Your task to perform on an android device: Open Reddit.com Image 0: 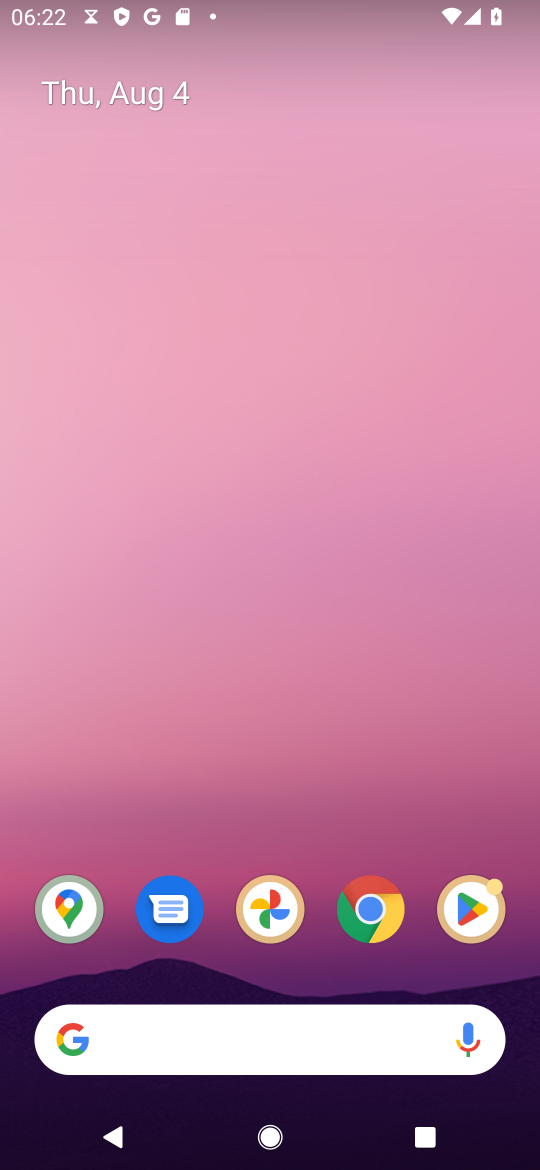
Step 0: click (370, 919)
Your task to perform on an android device: Open Reddit.com Image 1: 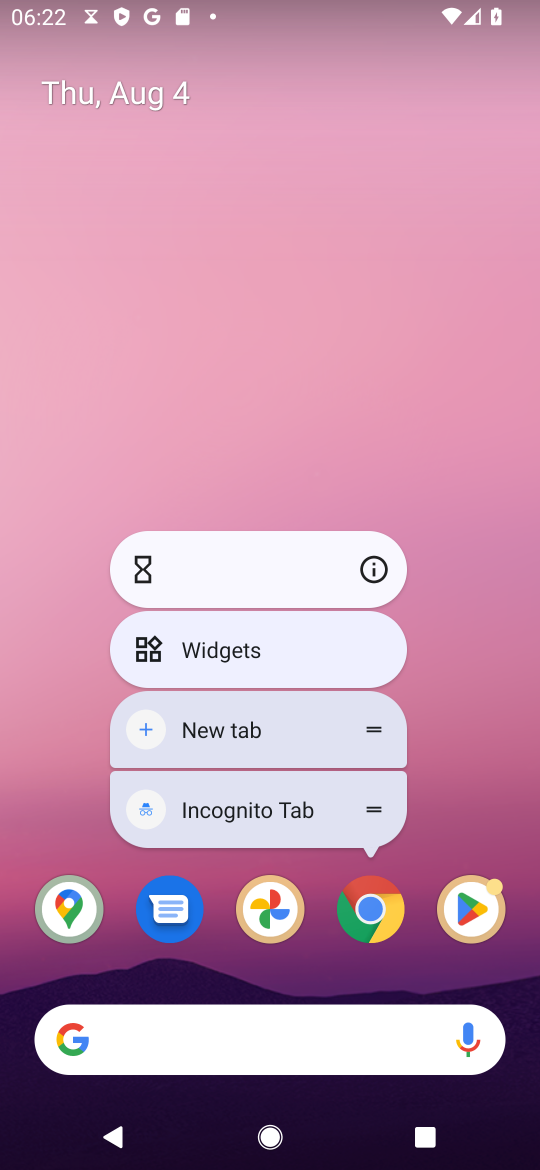
Step 1: click (372, 915)
Your task to perform on an android device: Open Reddit.com Image 2: 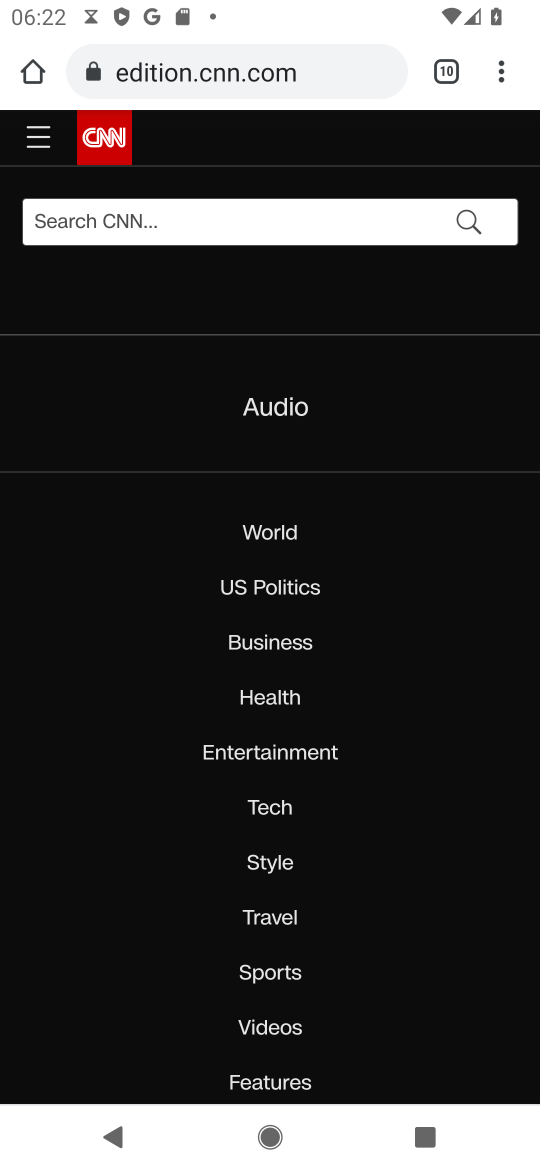
Step 2: drag from (503, 76) to (281, 247)
Your task to perform on an android device: Open Reddit.com Image 3: 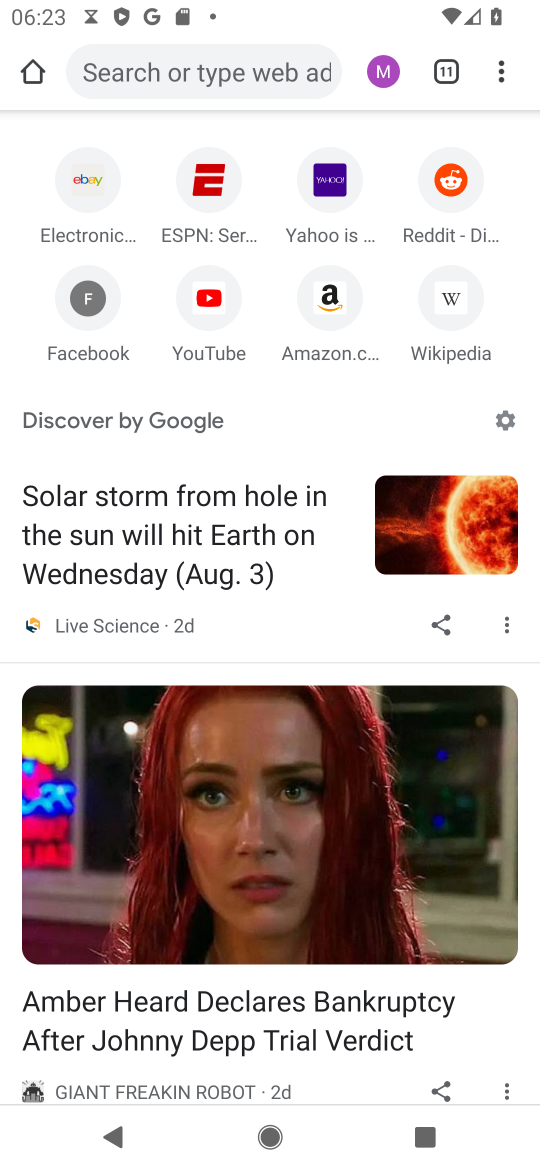
Step 3: click (458, 207)
Your task to perform on an android device: Open Reddit.com Image 4: 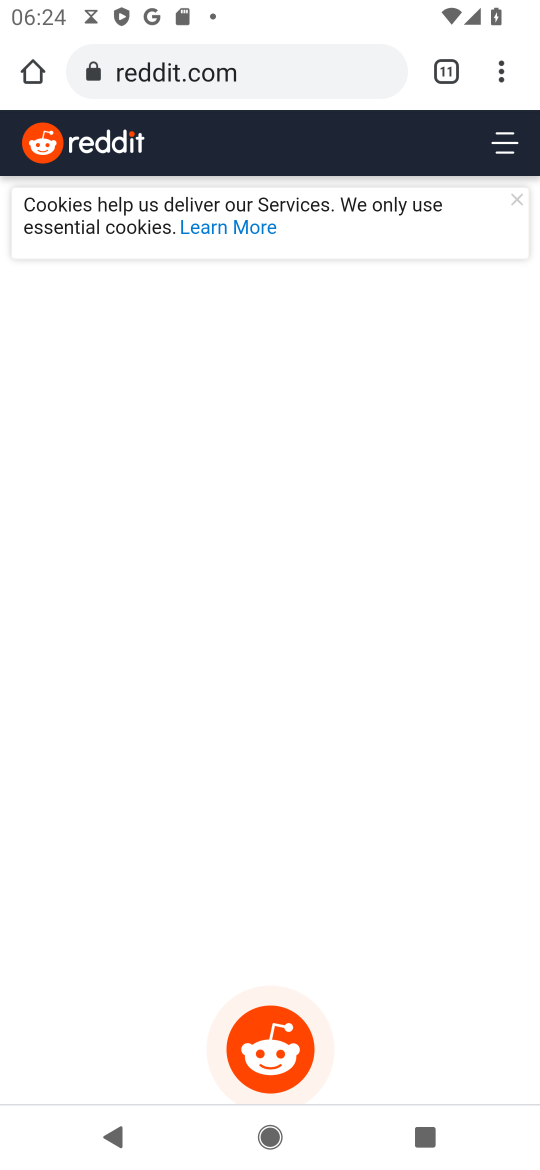
Step 4: task complete